Your task to perform on an android device: Add "acer nitro" to the cart on walmart Image 0: 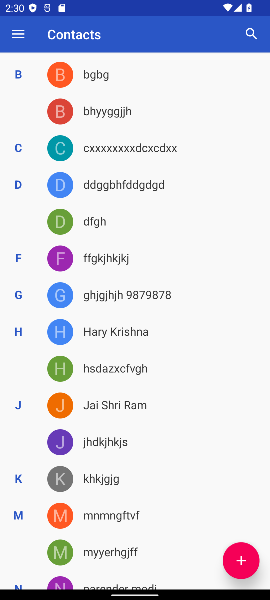
Step 0: press home button
Your task to perform on an android device: Add "acer nitro" to the cart on walmart Image 1: 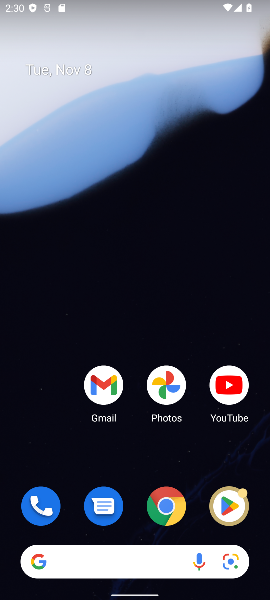
Step 1: click (176, 504)
Your task to perform on an android device: Add "acer nitro" to the cart on walmart Image 2: 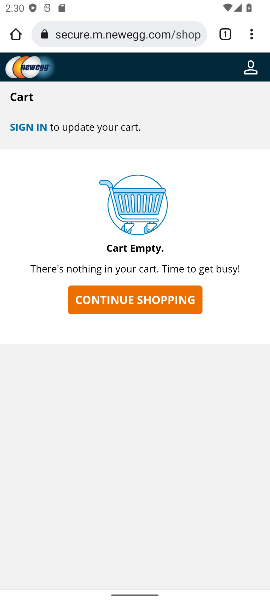
Step 2: click (193, 35)
Your task to perform on an android device: Add "acer nitro" to the cart on walmart Image 3: 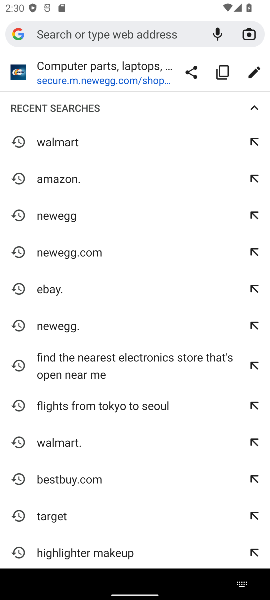
Step 3: type "walmart"
Your task to perform on an android device: Add "acer nitro" to the cart on walmart Image 4: 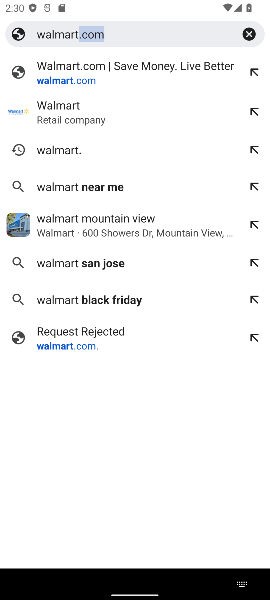
Step 4: click (152, 75)
Your task to perform on an android device: Add "acer nitro" to the cart on walmart Image 5: 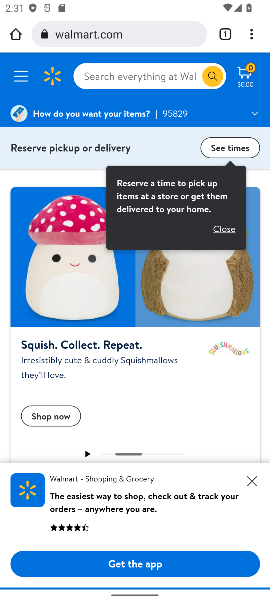
Step 5: click (136, 73)
Your task to perform on an android device: Add "acer nitro" to the cart on walmart Image 6: 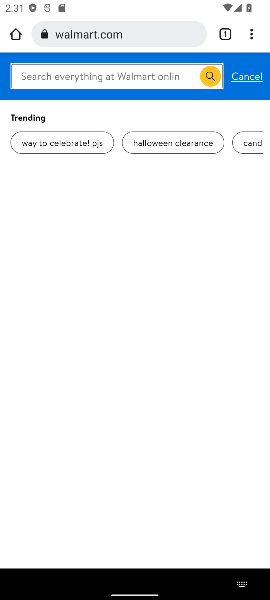
Step 6: type "acer nitro"
Your task to perform on an android device: Add "acer nitro" to the cart on walmart Image 7: 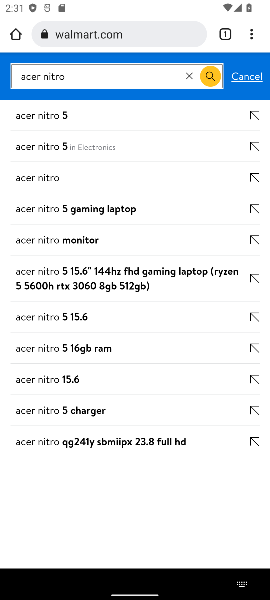
Step 7: click (133, 178)
Your task to perform on an android device: Add "acer nitro" to the cart on walmart Image 8: 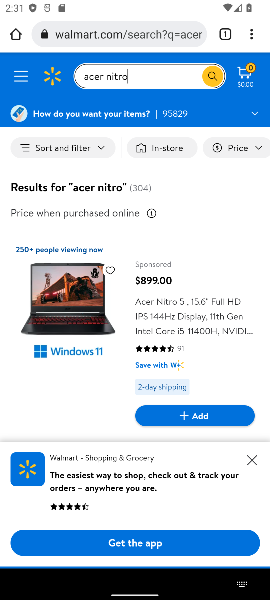
Step 8: click (188, 415)
Your task to perform on an android device: Add "acer nitro" to the cart on walmart Image 9: 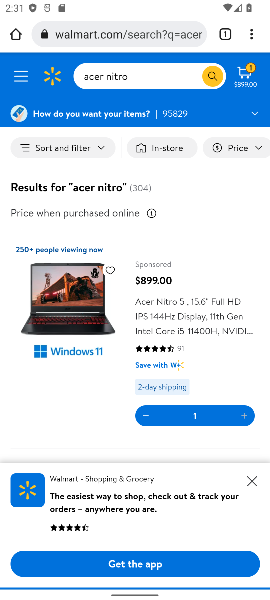
Step 9: task complete